Your task to perform on an android device: Search for flights from NYC to London Image 0: 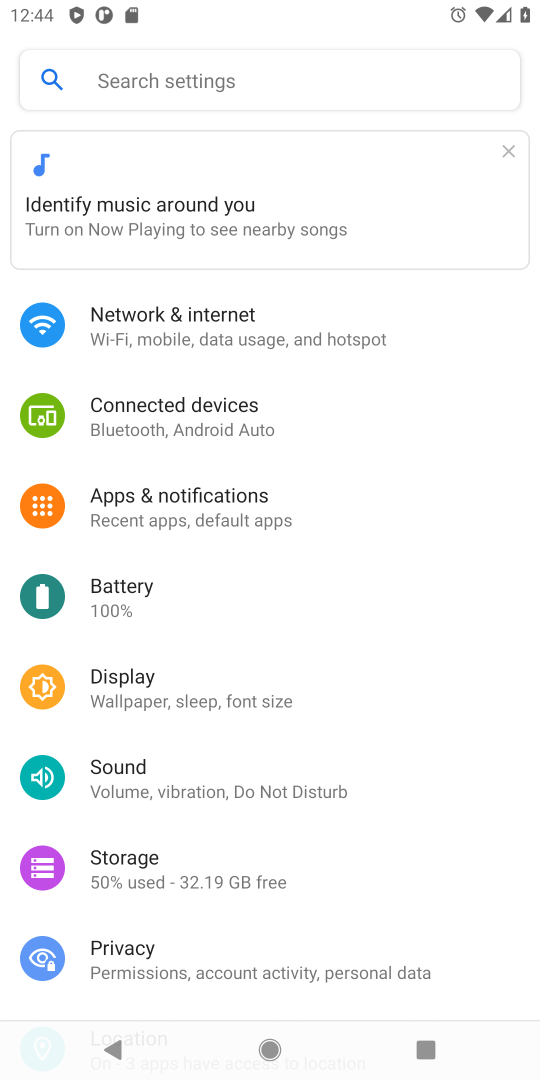
Step 0: press home button
Your task to perform on an android device: Search for flights from NYC to London Image 1: 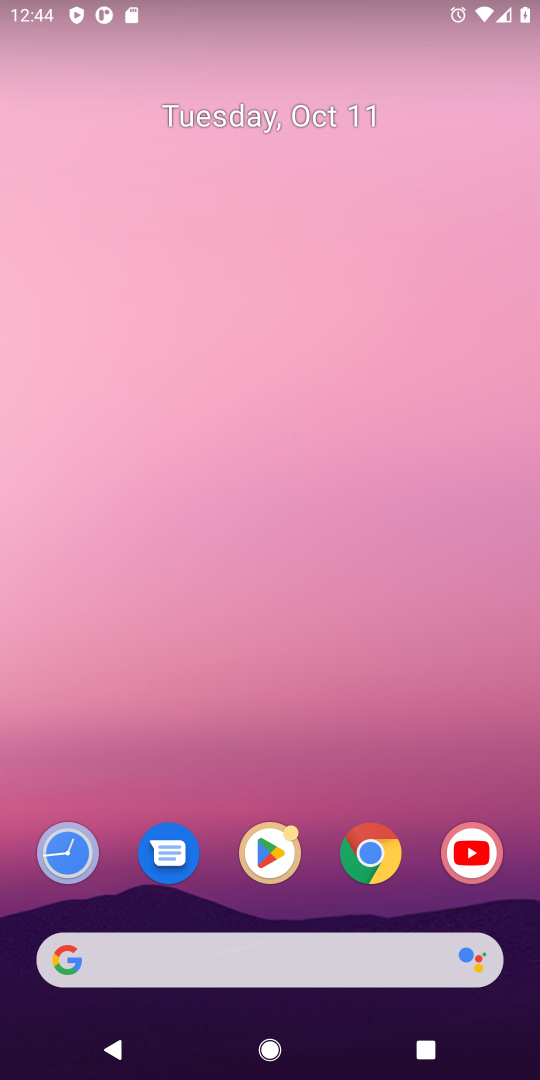
Step 1: drag from (332, 917) to (361, 38)
Your task to perform on an android device: Search for flights from NYC to London Image 2: 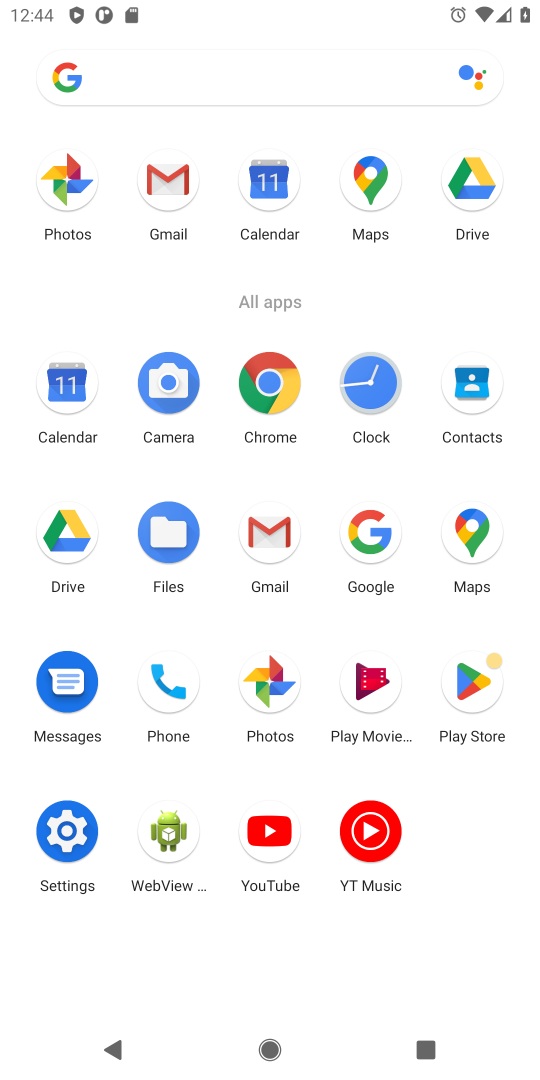
Step 2: click (264, 398)
Your task to perform on an android device: Search for flights from NYC to London Image 3: 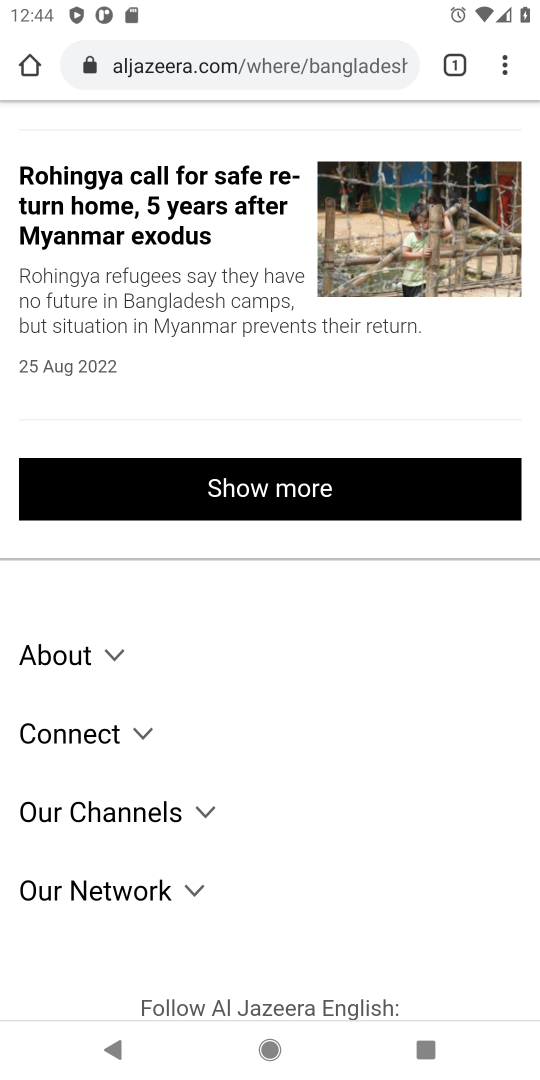
Step 3: click (230, 63)
Your task to perform on an android device: Search for flights from NYC to London Image 4: 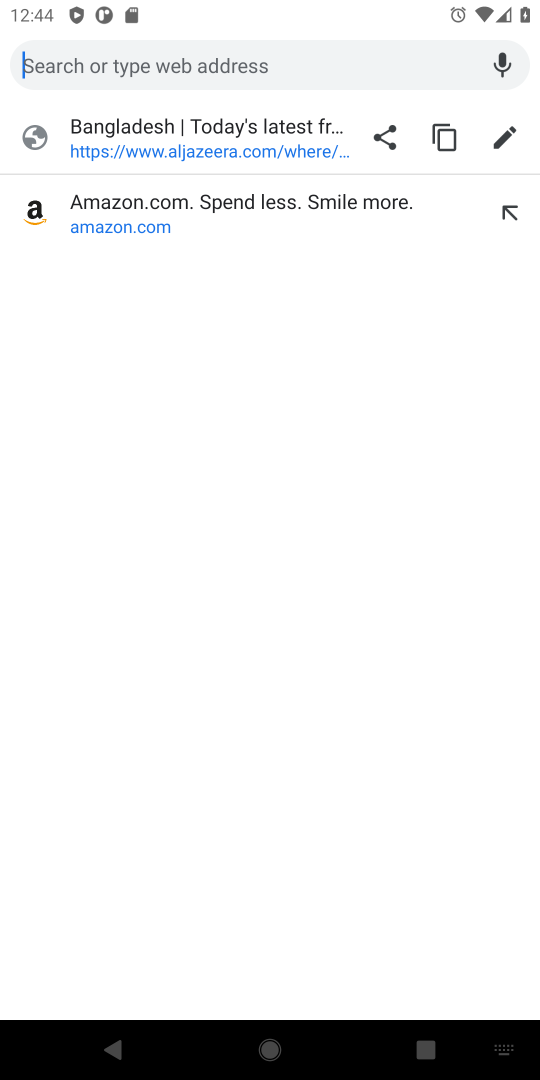
Step 4: type " flights from NYC to London"
Your task to perform on an android device: Search for flights from NYC to London Image 5: 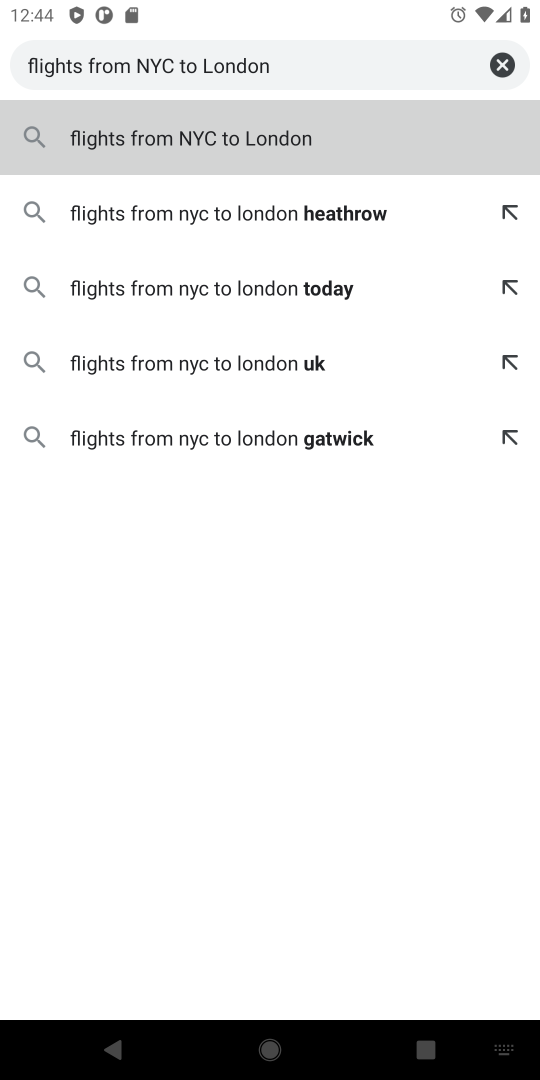
Step 5: type ""
Your task to perform on an android device: Search for flights from NYC to London Image 6: 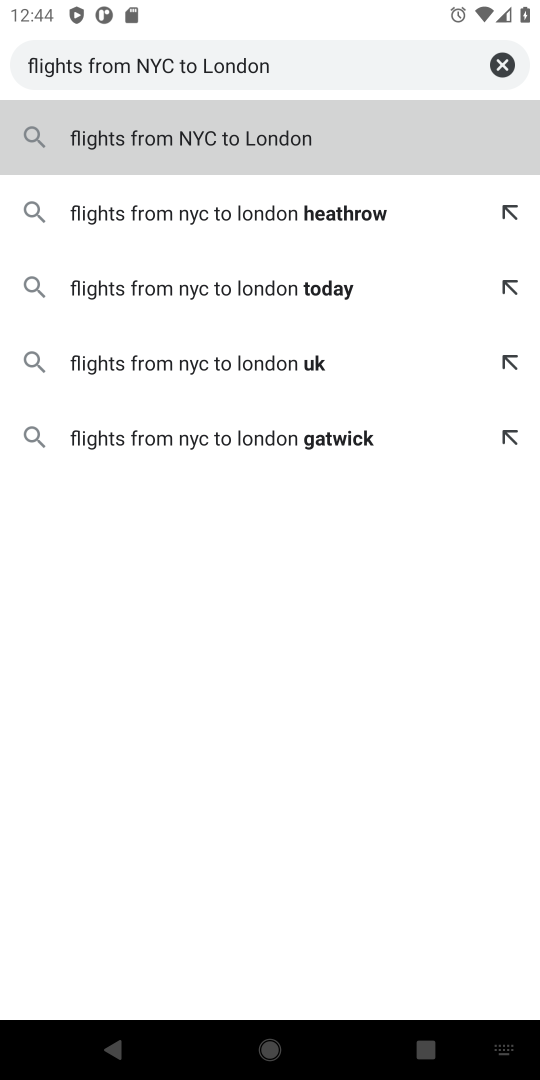
Step 6: press enter
Your task to perform on an android device: Search for flights from NYC to London Image 7: 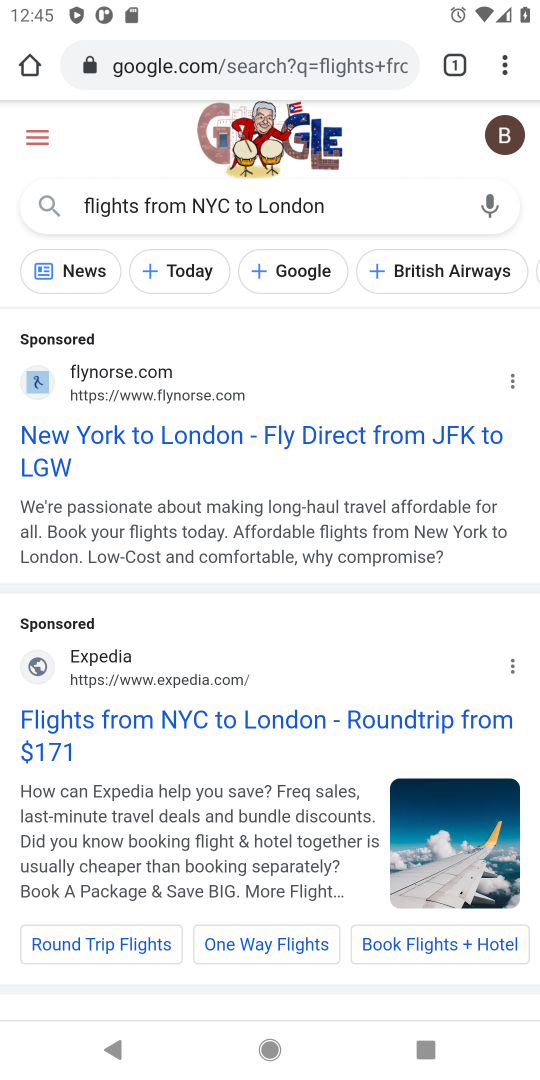
Step 7: click (138, 435)
Your task to perform on an android device: Search for flights from NYC to London Image 8: 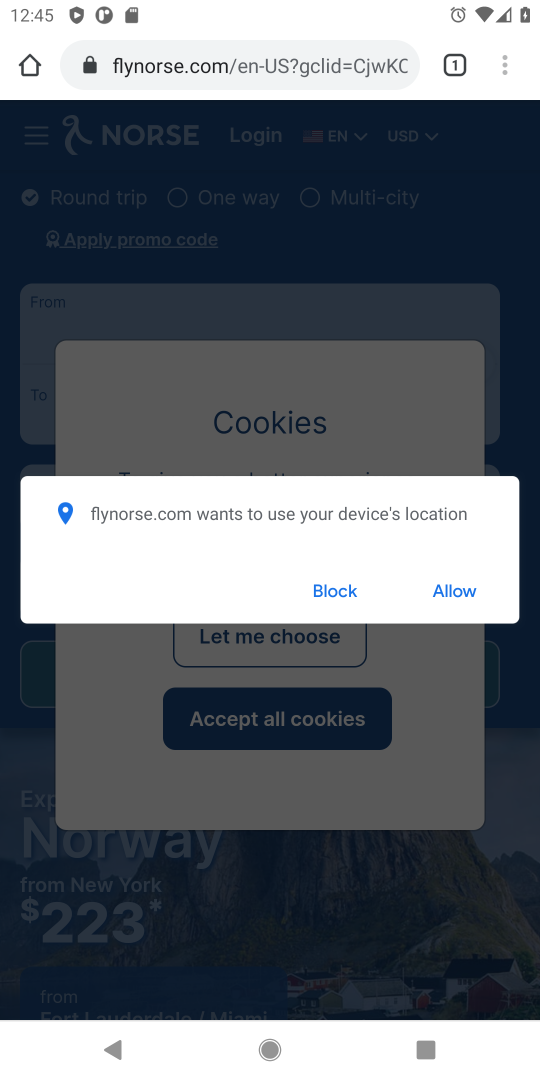
Step 8: click (336, 588)
Your task to perform on an android device: Search for flights from NYC to London Image 9: 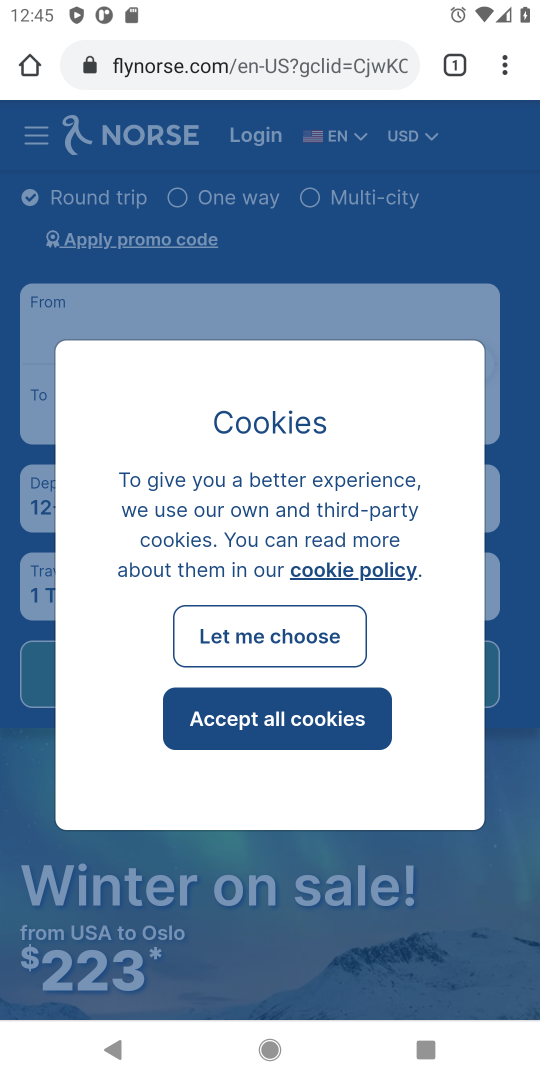
Step 9: drag from (370, 808) to (399, 413)
Your task to perform on an android device: Search for flights from NYC to London Image 10: 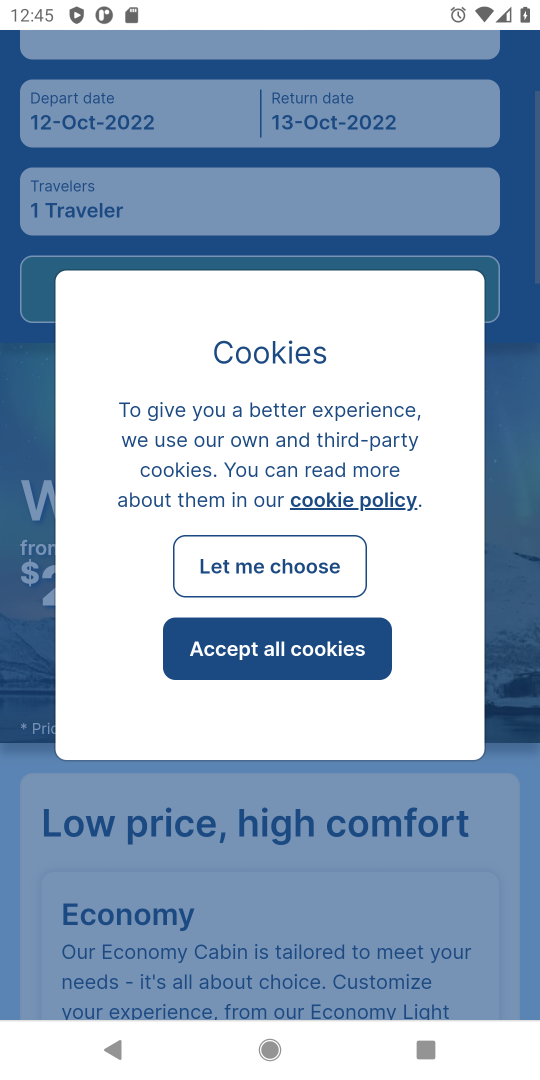
Step 10: click (295, 721)
Your task to perform on an android device: Search for flights from NYC to London Image 11: 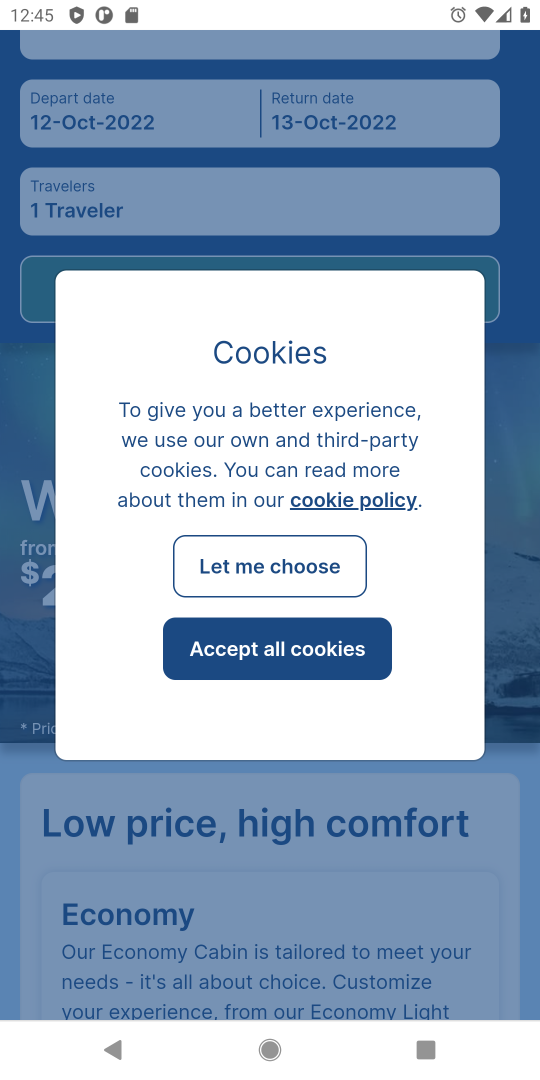
Step 11: click (294, 667)
Your task to perform on an android device: Search for flights from NYC to London Image 12: 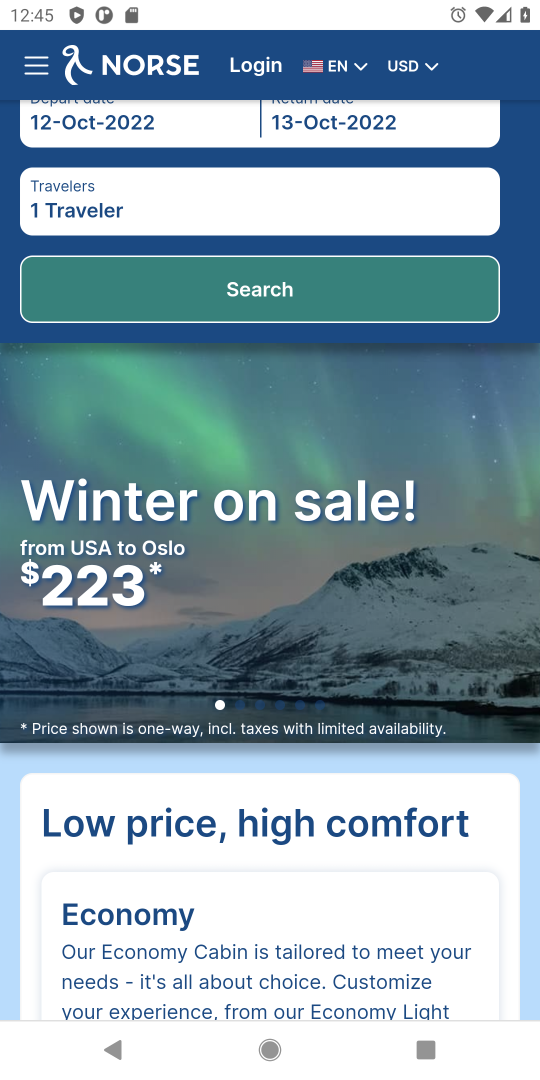
Step 12: drag from (324, 380) to (323, 65)
Your task to perform on an android device: Search for flights from NYC to London Image 13: 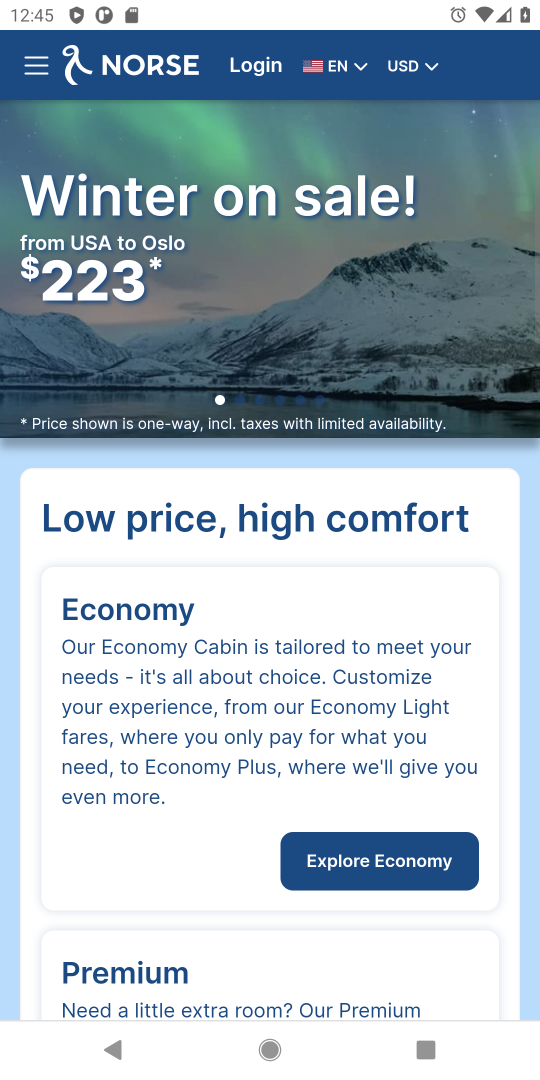
Step 13: drag from (314, 881) to (320, 221)
Your task to perform on an android device: Search for flights from NYC to London Image 14: 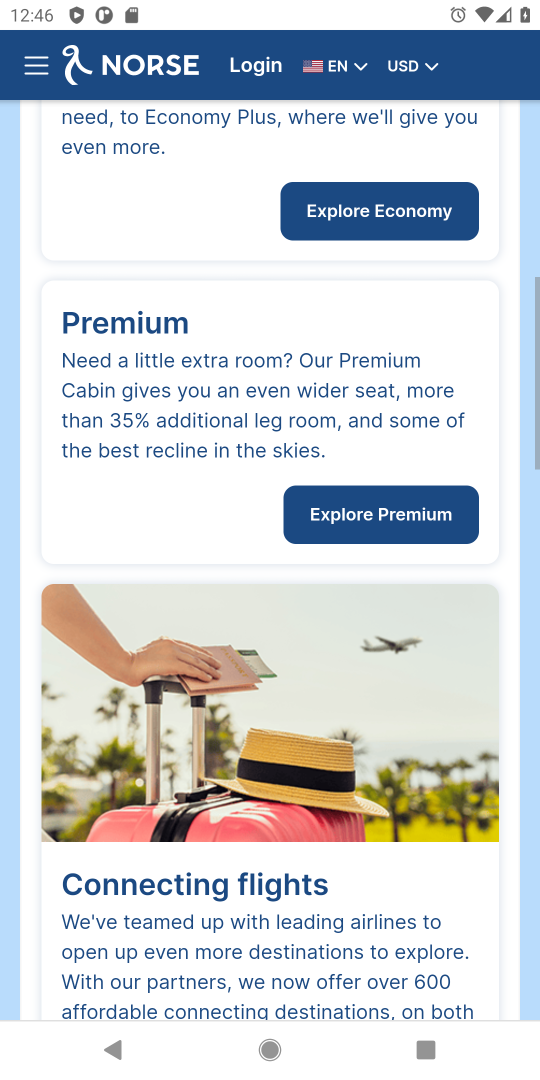
Step 14: drag from (344, 754) to (271, 237)
Your task to perform on an android device: Search for flights from NYC to London Image 15: 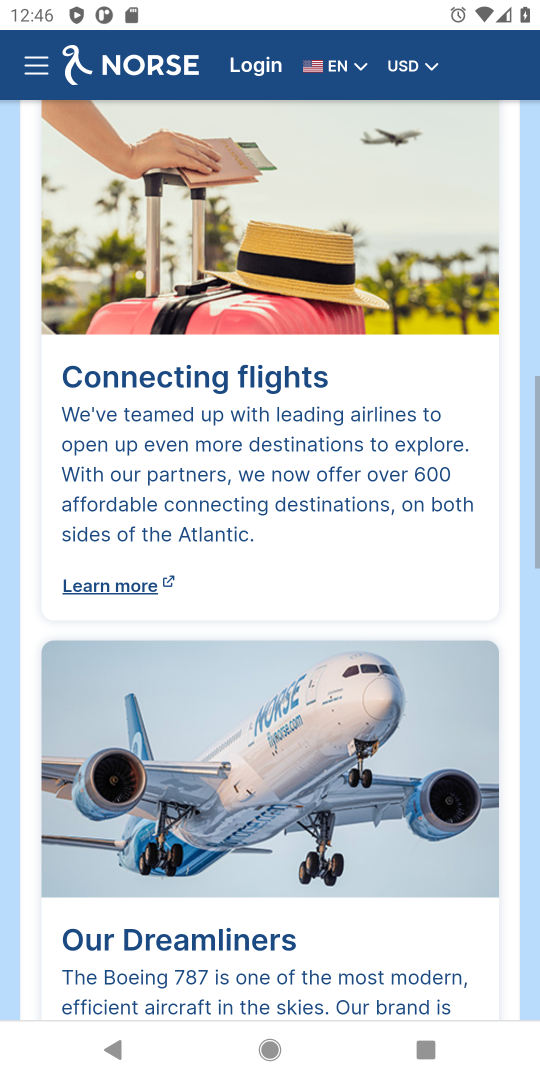
Step 15: drag from (296, 604) to (279, 238)
Your task to perform on an android device: Search for flights from NYC to London Image 16: 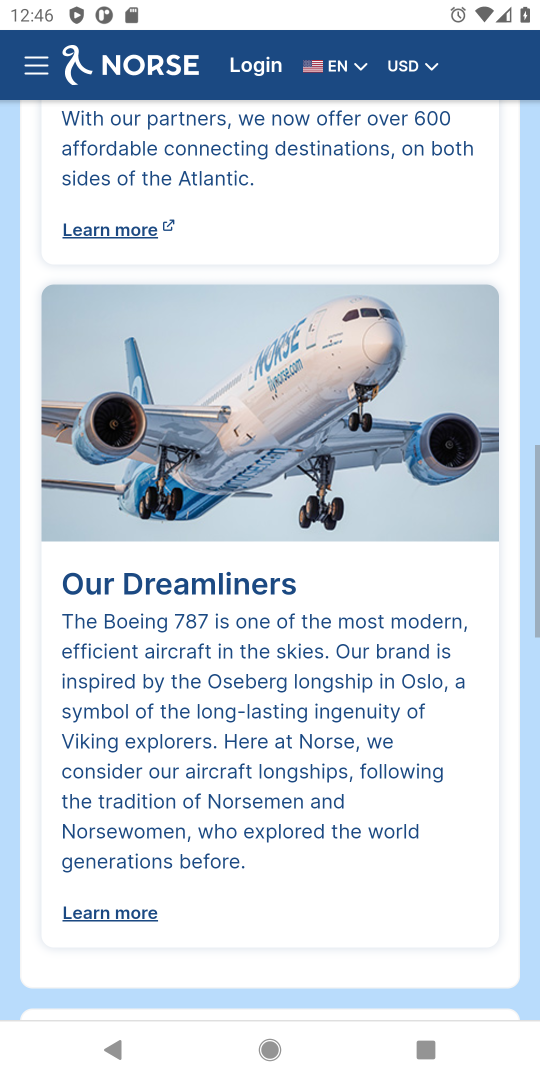
Step 16: drag from (266, 869) to (216, 174)
Your task to perform on an android device: Search for flights from NYC to London Image 17: 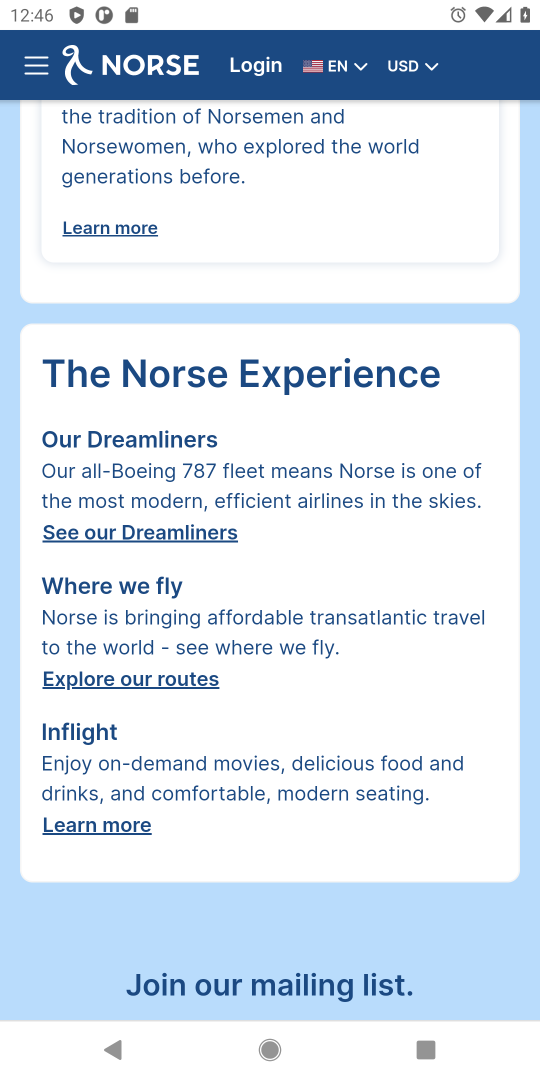
Step 17: press back button
Your task to perform on an android device: Search for flights from NYC to London Image 18: 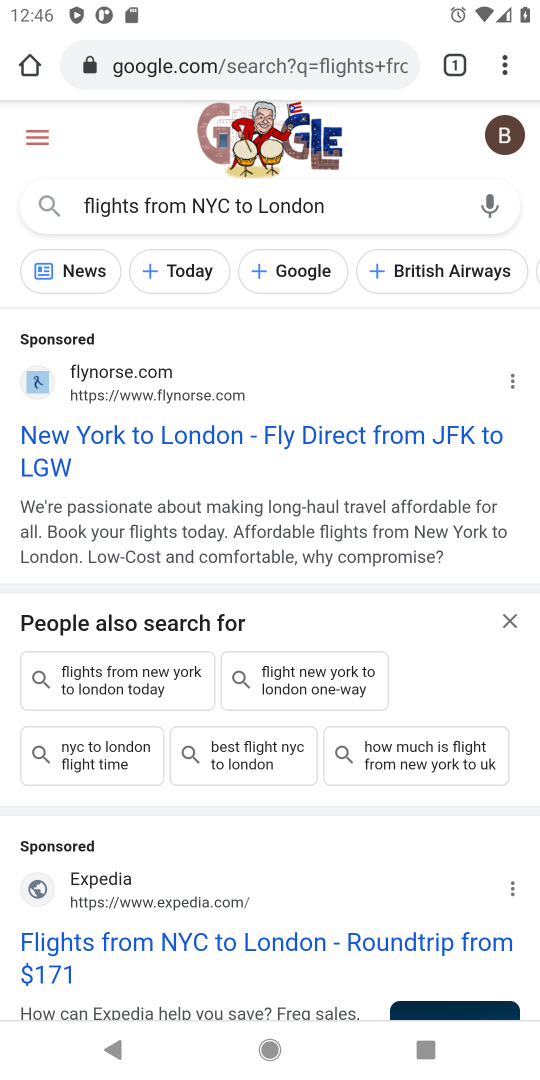
Step 18: drag from (371, 740) to (241, 324)
Your task to perform on an android device: Search for flights from NYC to London Image 19: 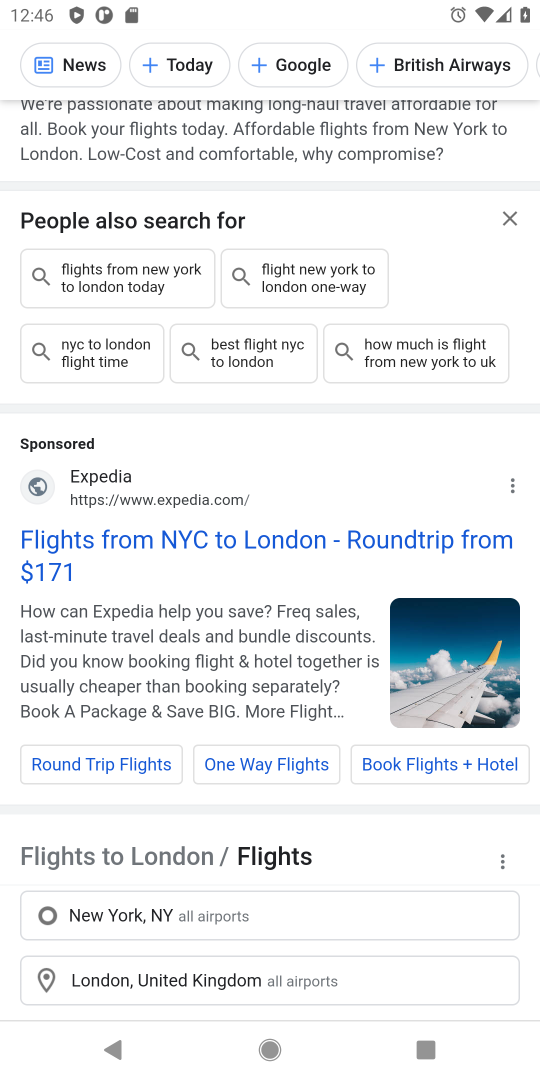
Step 19: click (338, 543)
Your task to perform on an android device: Search for flights from NYC to London Image 20: 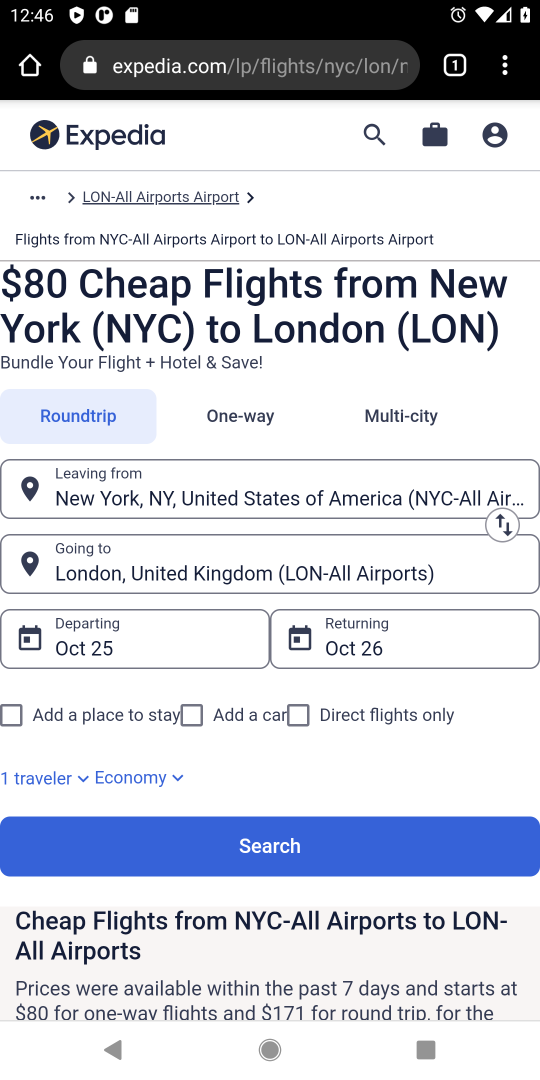
Step 20: task complete